Your task to perform on an android device: toggle wifi Image 0: 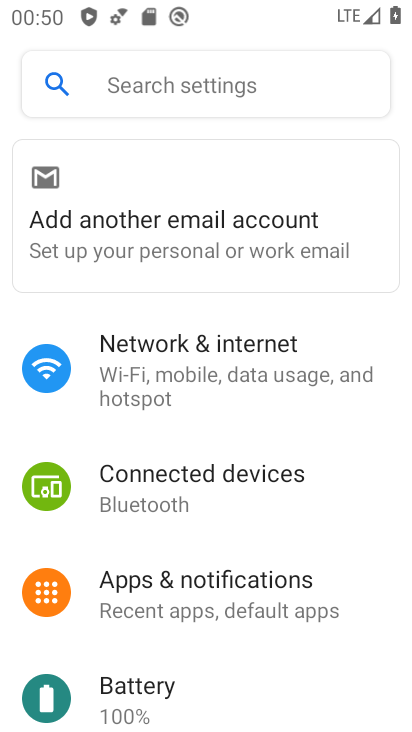
Step 0: click (222, 375)
Your task to perform on an android device: toggle wifi Image 1: 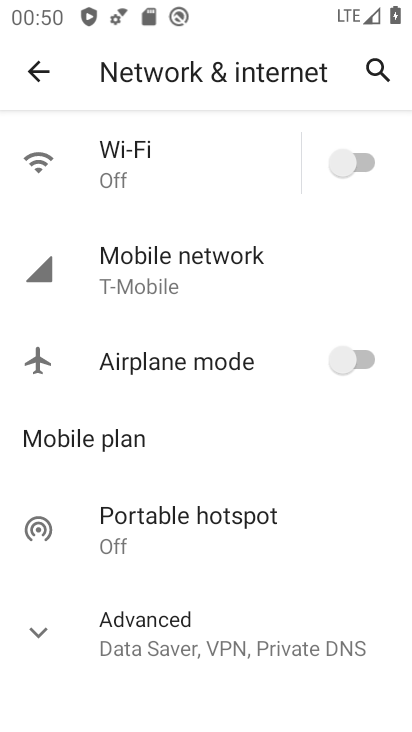
Step 1: click (333, 166)
Your task to perform on an android device: toggle wifi Image 2: 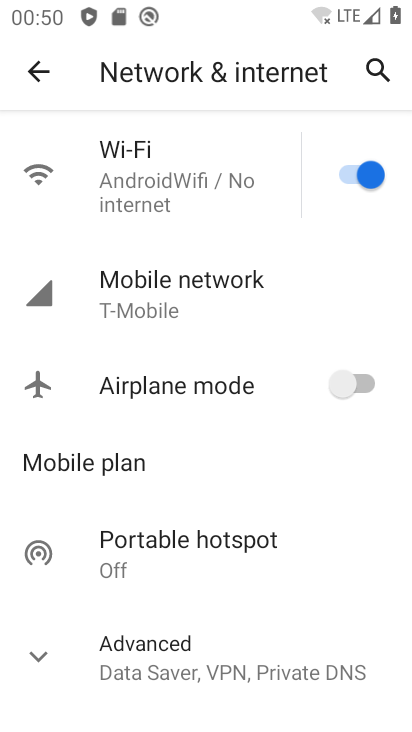
Step 2: task complete